Your task to perform on an android device: install app "Airtel Thanks" Image 0: 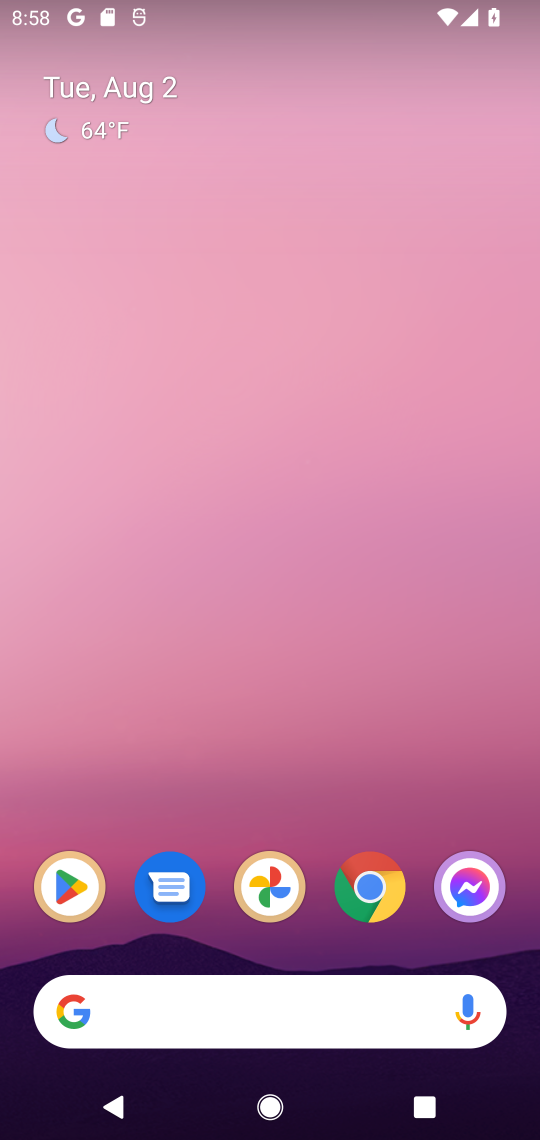
Step 0: click (69, 896)
Your task to perform on an android device: install app "Airtel Thanks" Image 1: 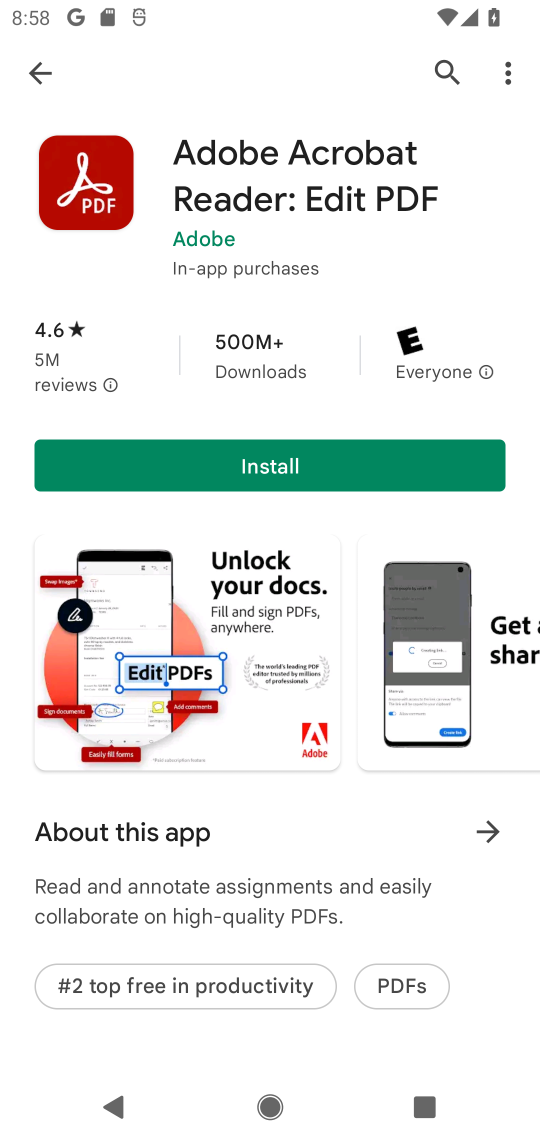
Step 1: click (445, 75)
Your task to perform on an android device: install app "Airtel Thanks" Image 2: 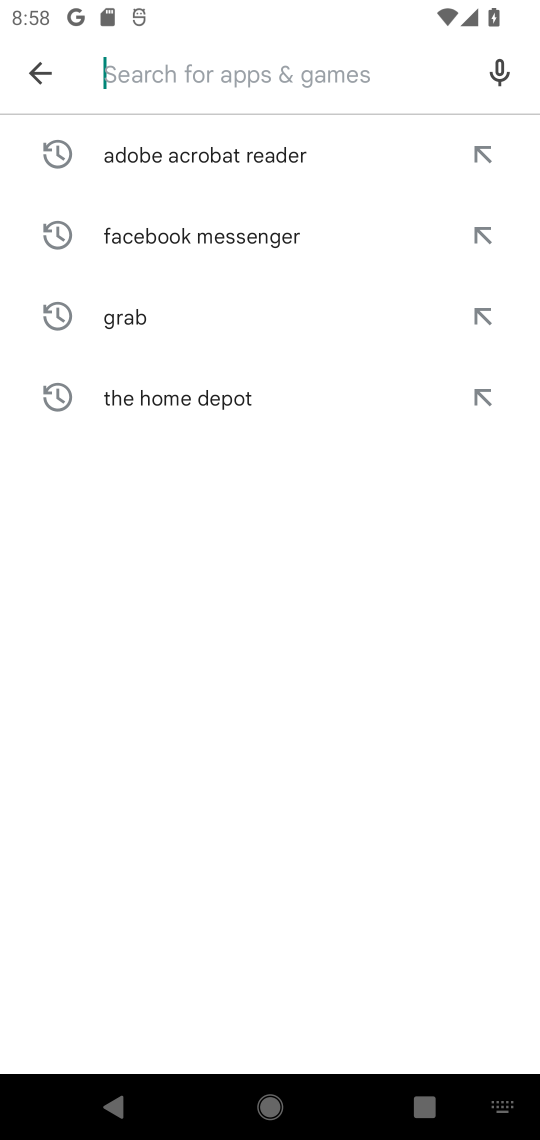
Step 2: type "airtel thanks"
Your task to perform on an android device: install app "Airtel Thanks" Image 3: 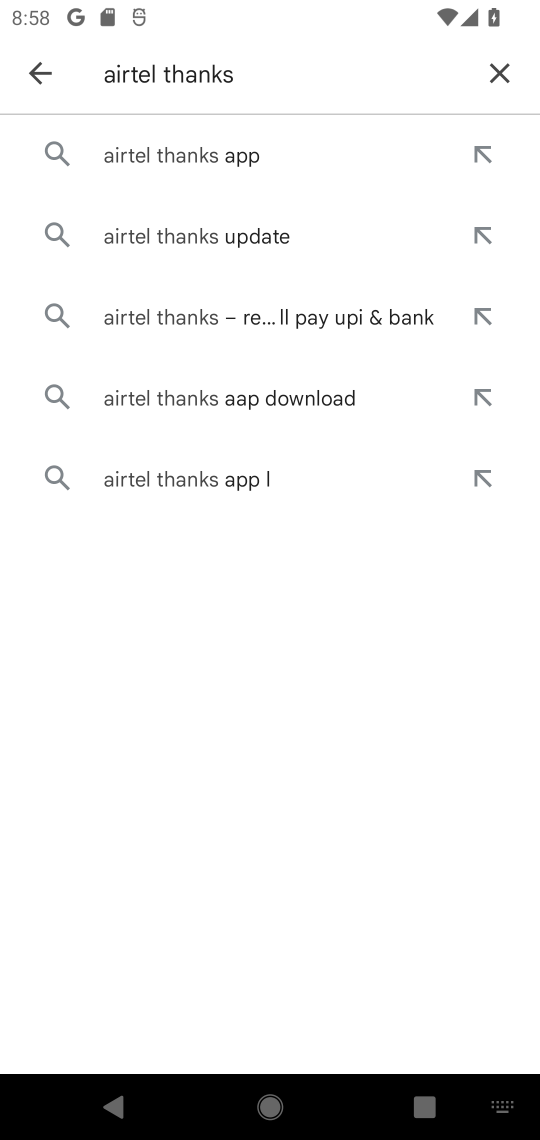
Step 3: click (168, 141)
Your task to perform on an android device: install app "Airtel Thanks" Image 4: 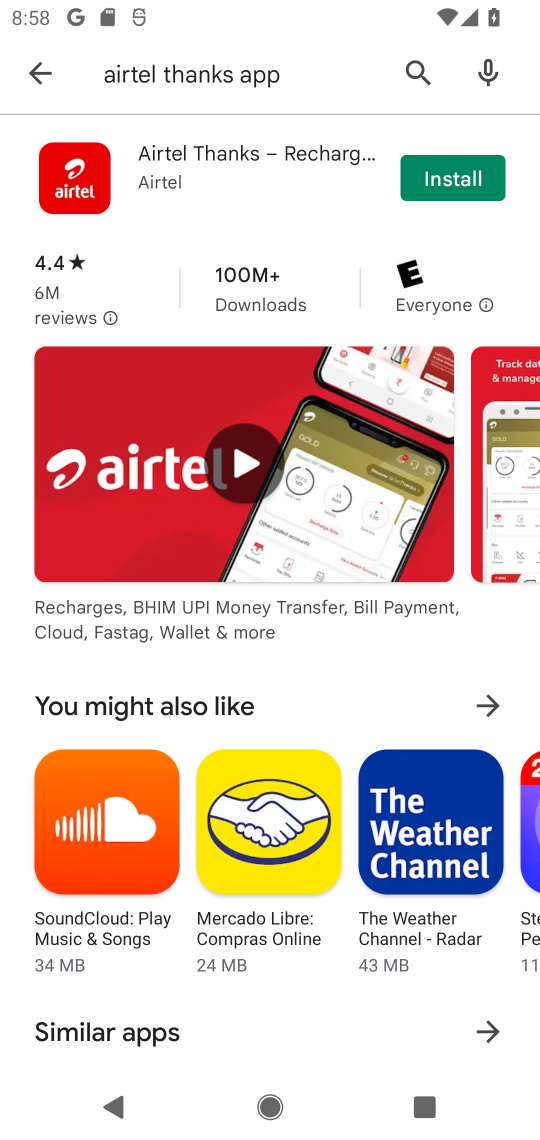
Step 4: click (231, 156)
Your task to perform on an android device: install app "Airtel Thanks" Image 5: 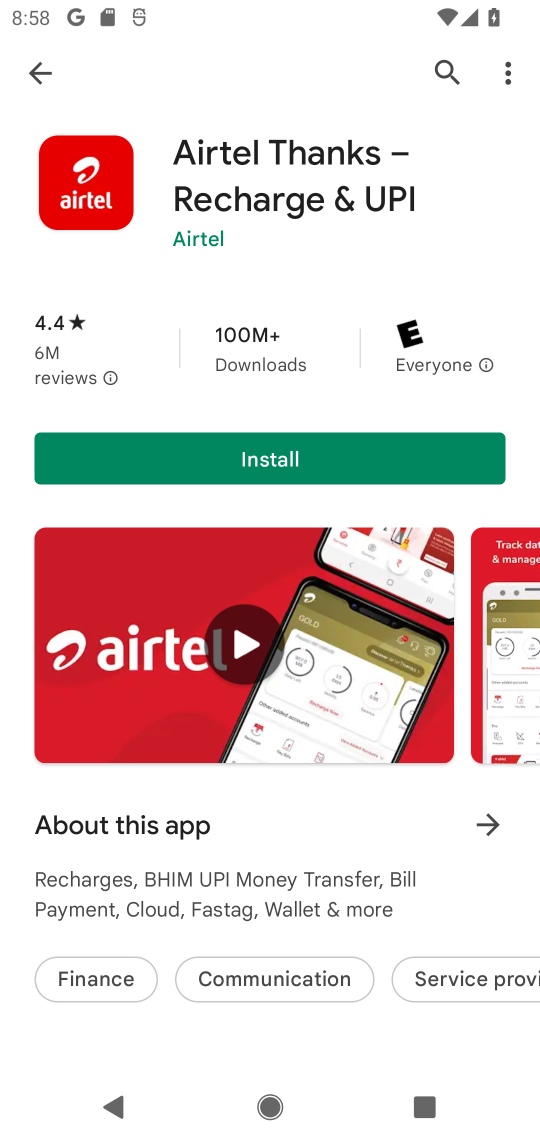
Step 5: click (121, 460)
Your task to perform on an android device: install app "Airtel Thanks" Image 6: 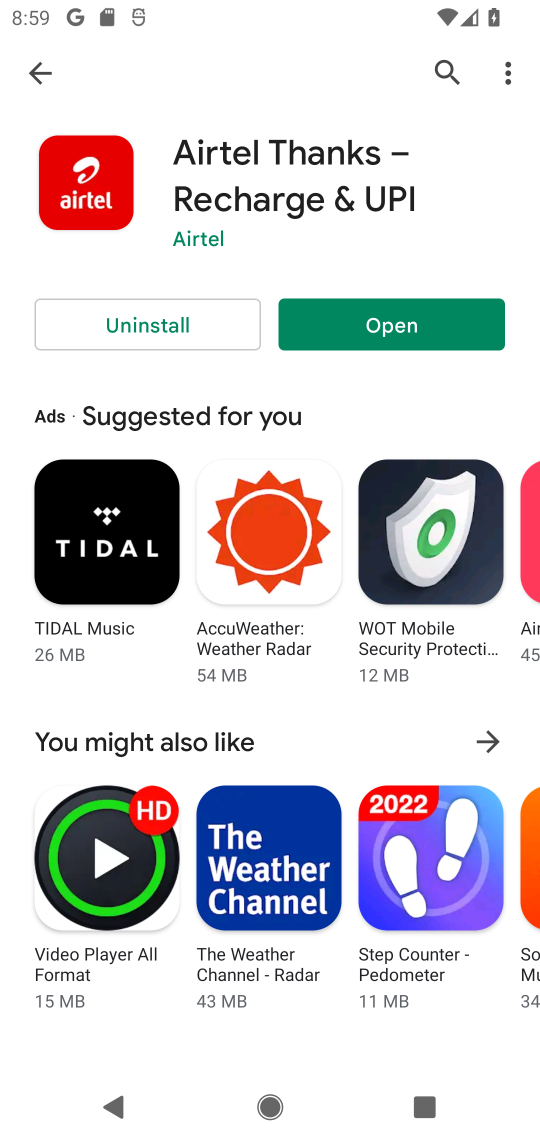
Step 6: task complete